Your task to perform on an android device: Go to wifi settings Image 0: 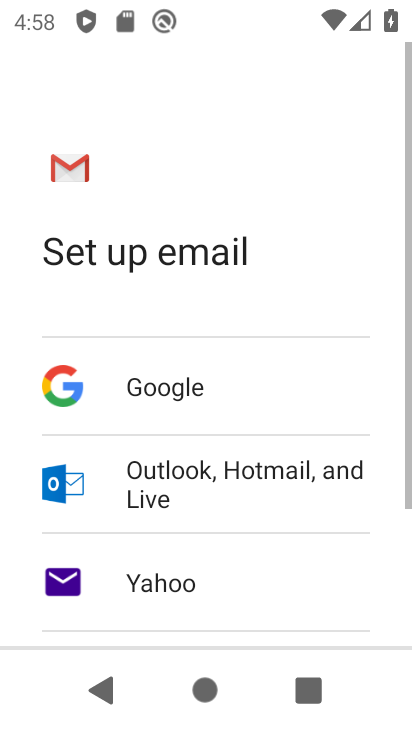
Step 0: press home button
Your task to perform on an android device: Go to wifi settings Image 1: 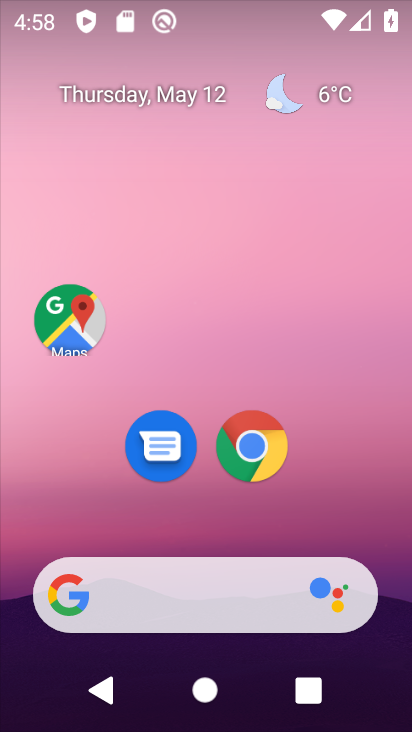
Step 1: drag from (195, 33) to (197, 474)
Your task to perform on an android device: Go to wifi settings Image 2: 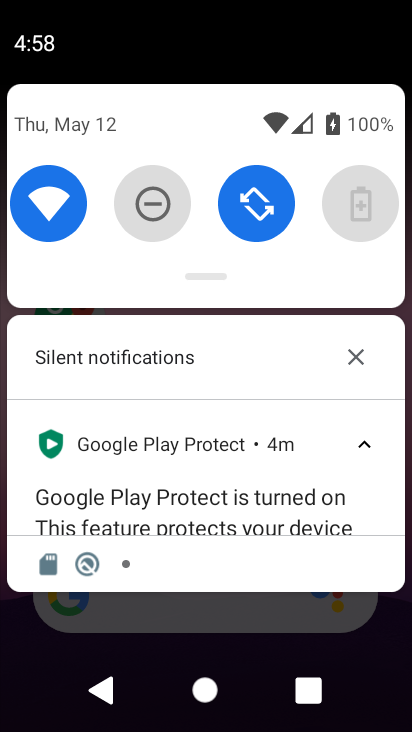
Step 2: click (34, 191)
Your task to perform on an android device: Go to wifi settings Image 3: 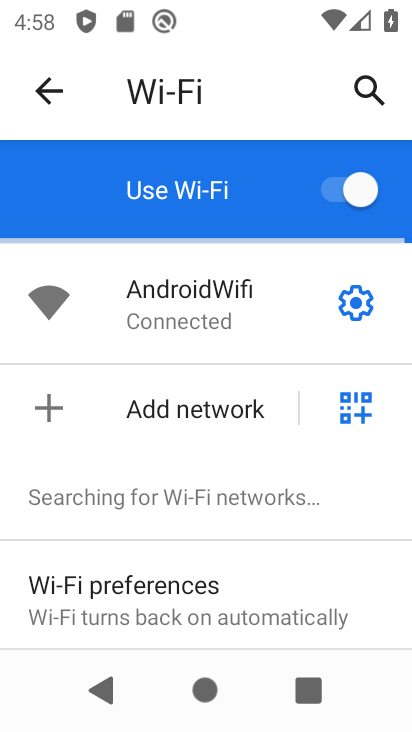
Step 3: task complete